Your task to perform on an android device: uninstall "Move to iOS" Image 0: 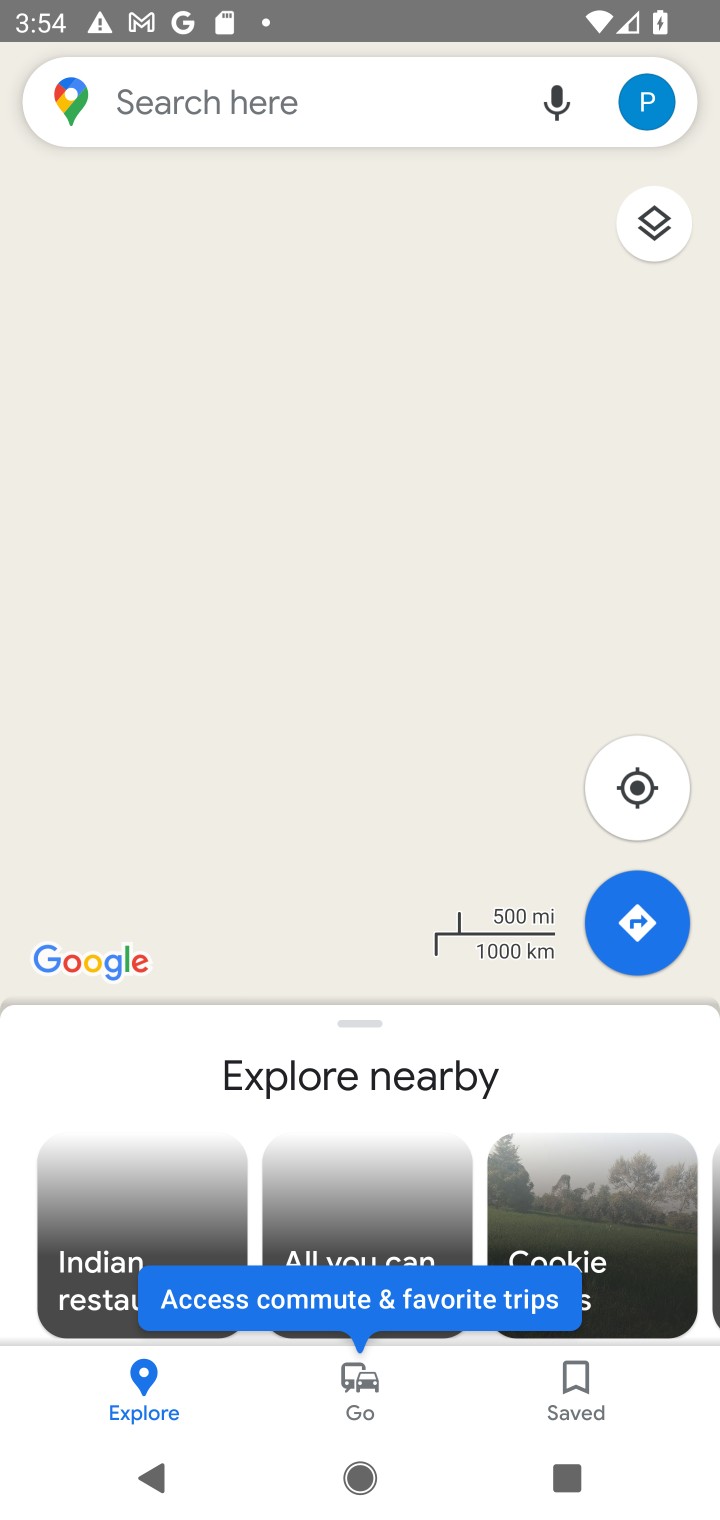
Step 0: click (297, 92)
Your task to perform on an android device: uninstall "Move to iOS" Image 1: 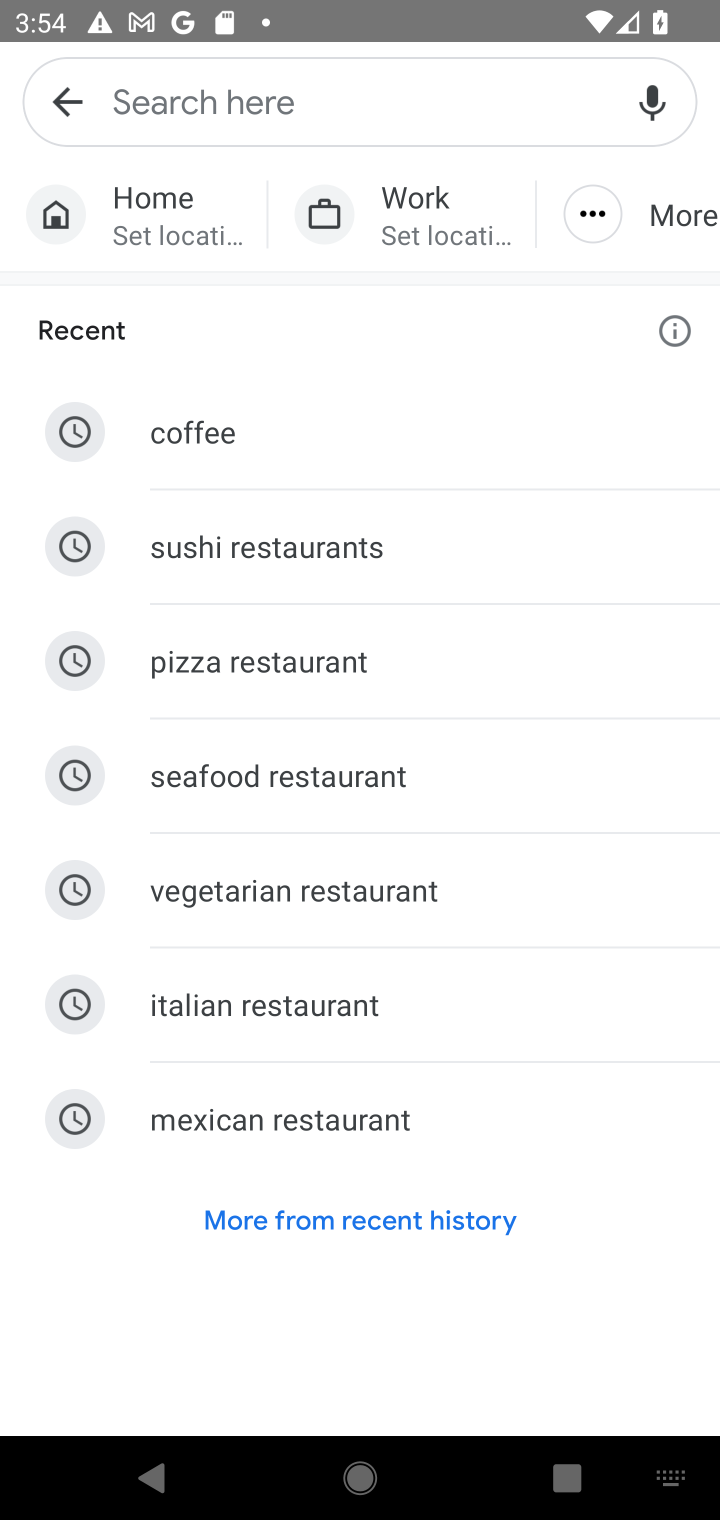
Step 1: type "move to ios"
Your task to perform on an android device: uninstall "Move to iOS" Image 2: 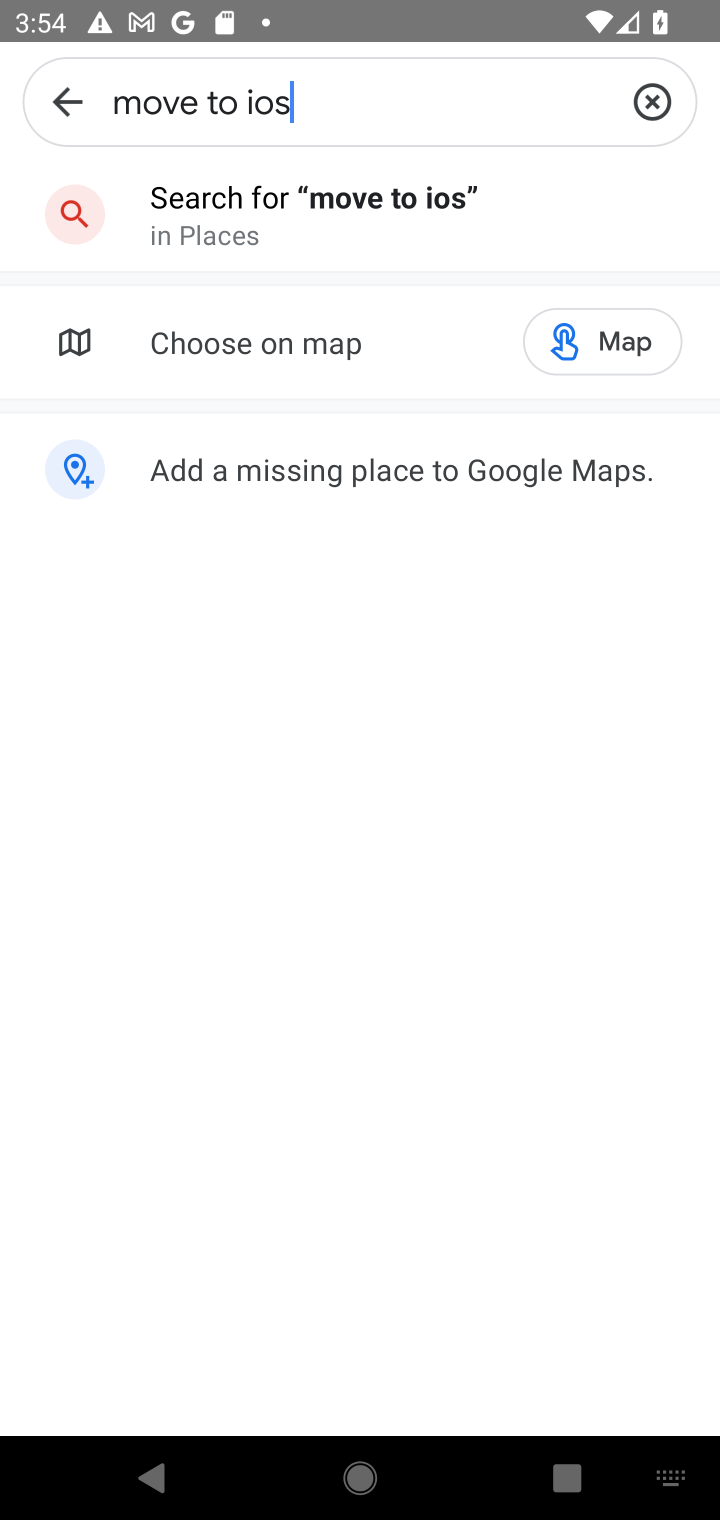
Step 2: click (324, 226)
Your task to perform on an android device: uninstall "Move to iOS" Image 3: 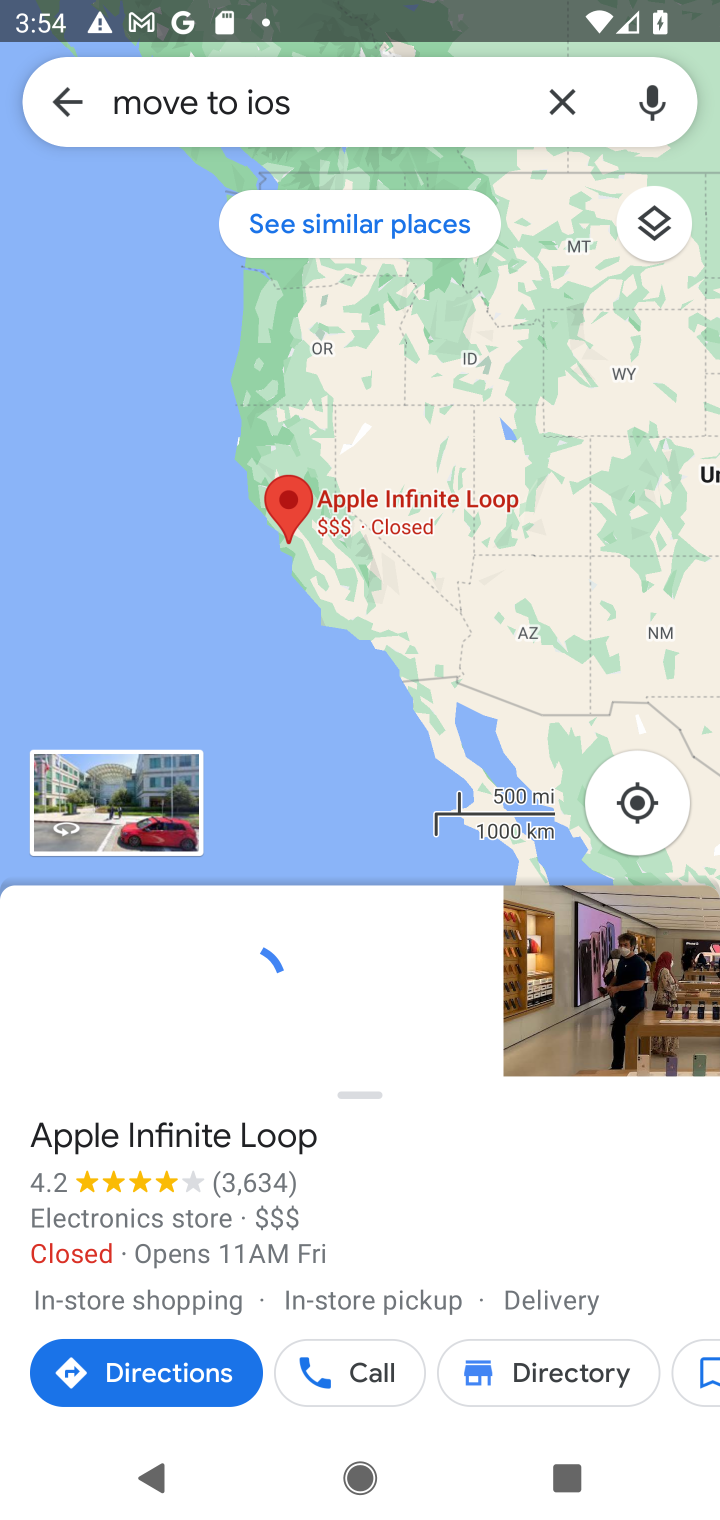
Step 3: press home button
Your task to perform on an android device: uninstall "Move to iOS" Image 4: 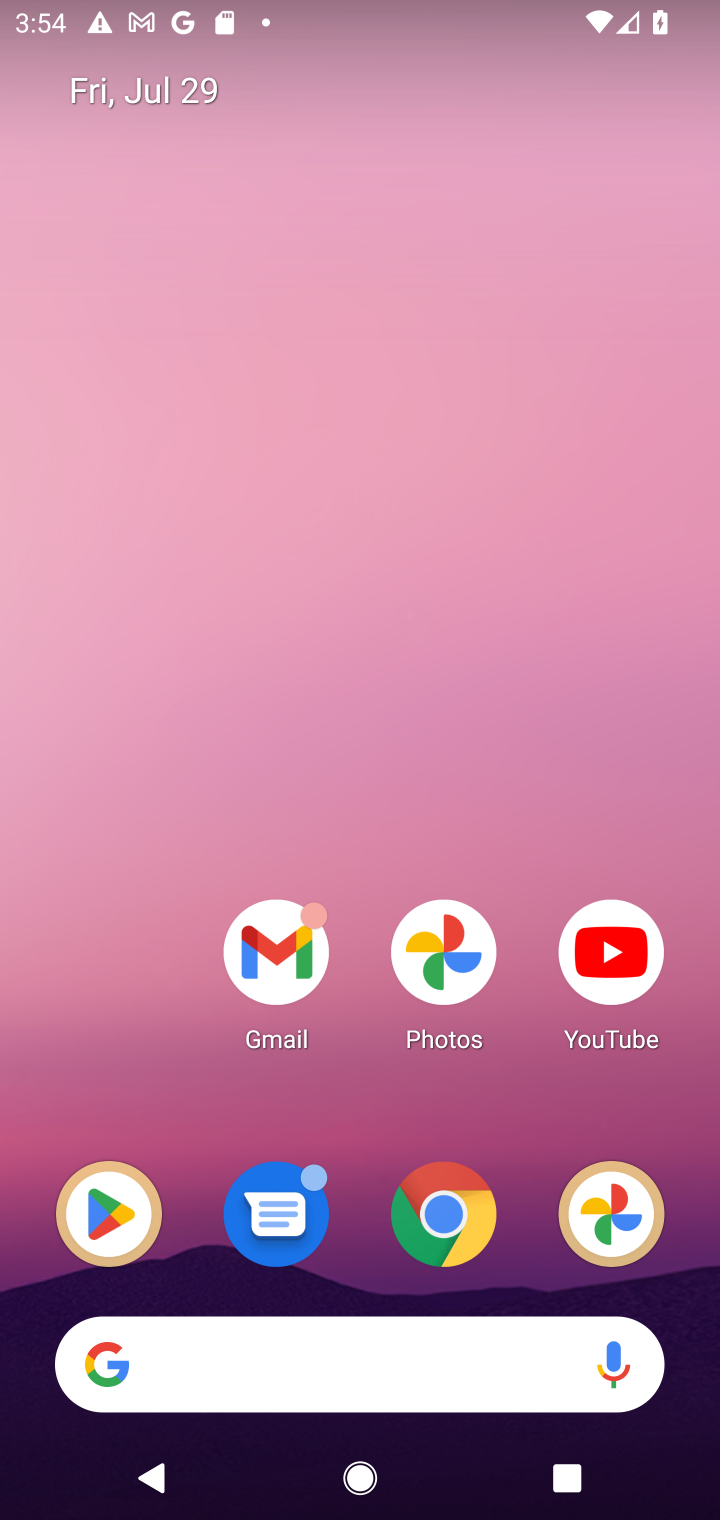
Step 4: click (129, 1190)
Your task to perform on an android device: uninstall "Move to iOS" Image 5: 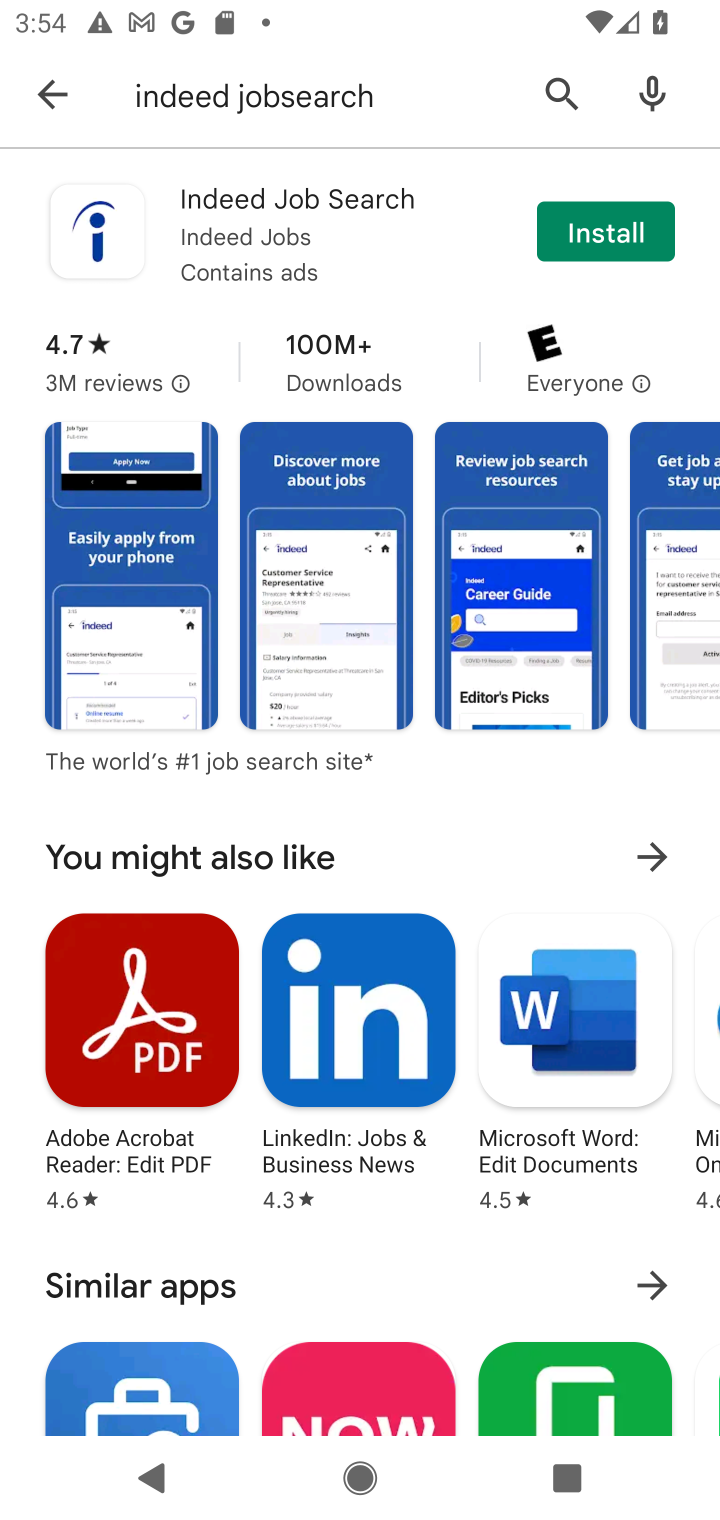
Step 5: click (327, 90)
Your task to perform on an android device: uninstall "Move to iOS" Image 6: 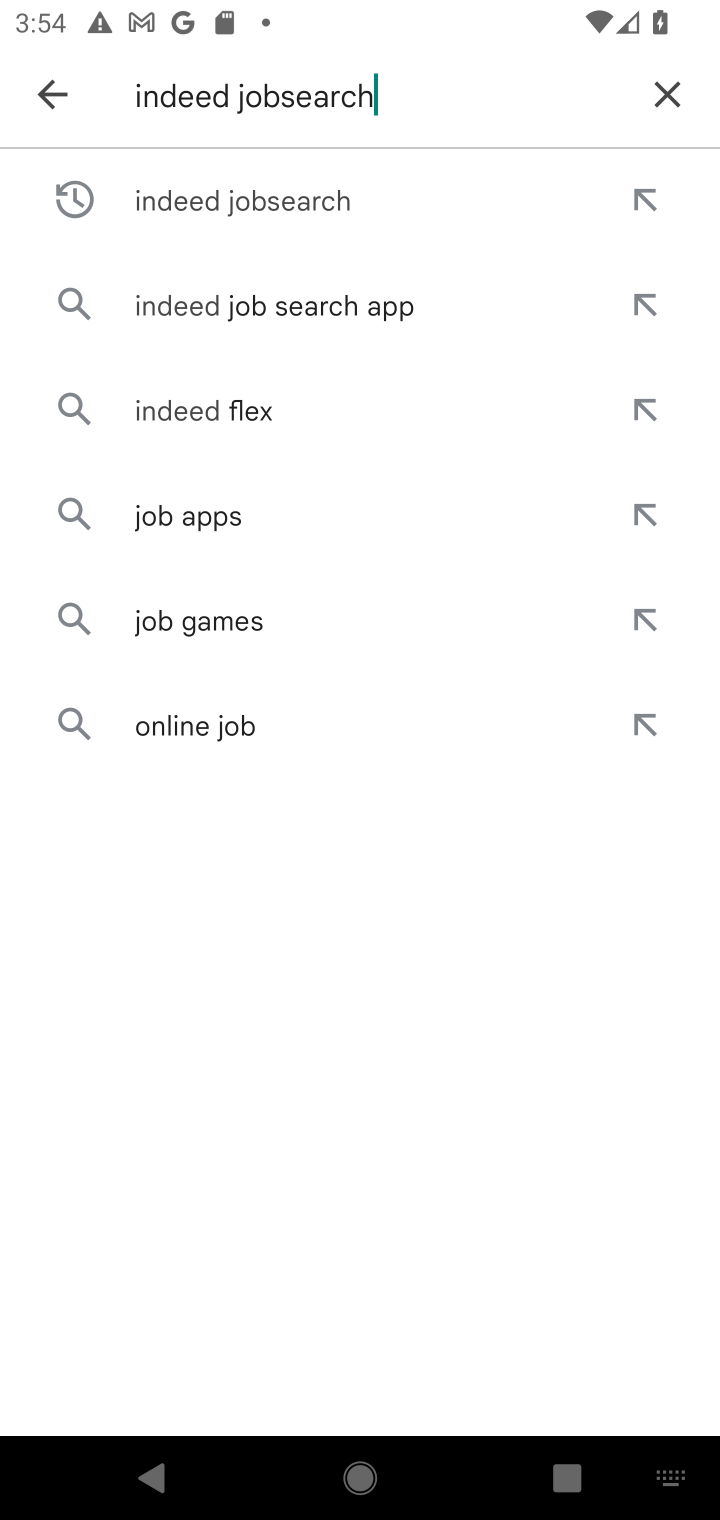
Step 6: click (668, 89)
Your task to perform on an android device: uninstall "Move to iOS" Image 7: 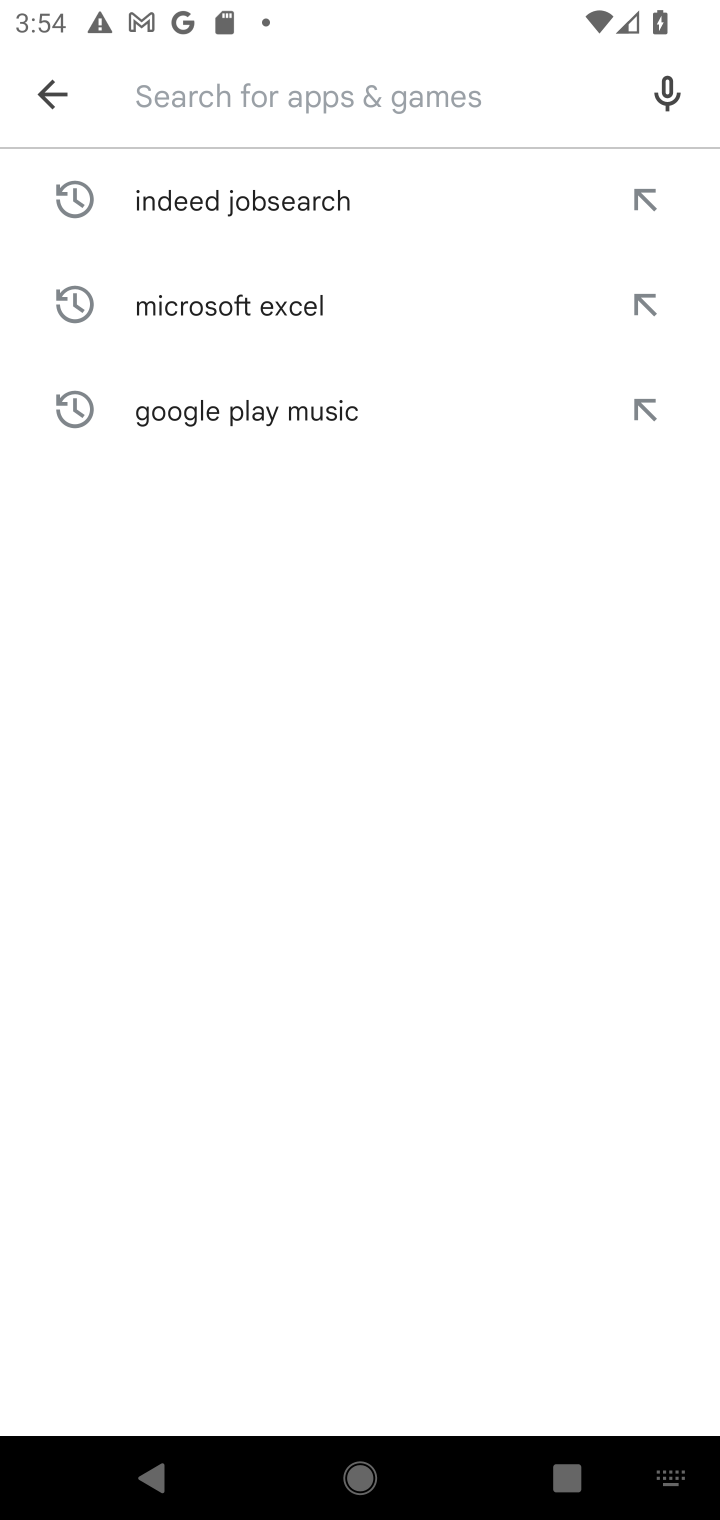
Step 7: type "move to ios"
Your task to perform on an android device: uninstall "Move to iOS" Image 8: 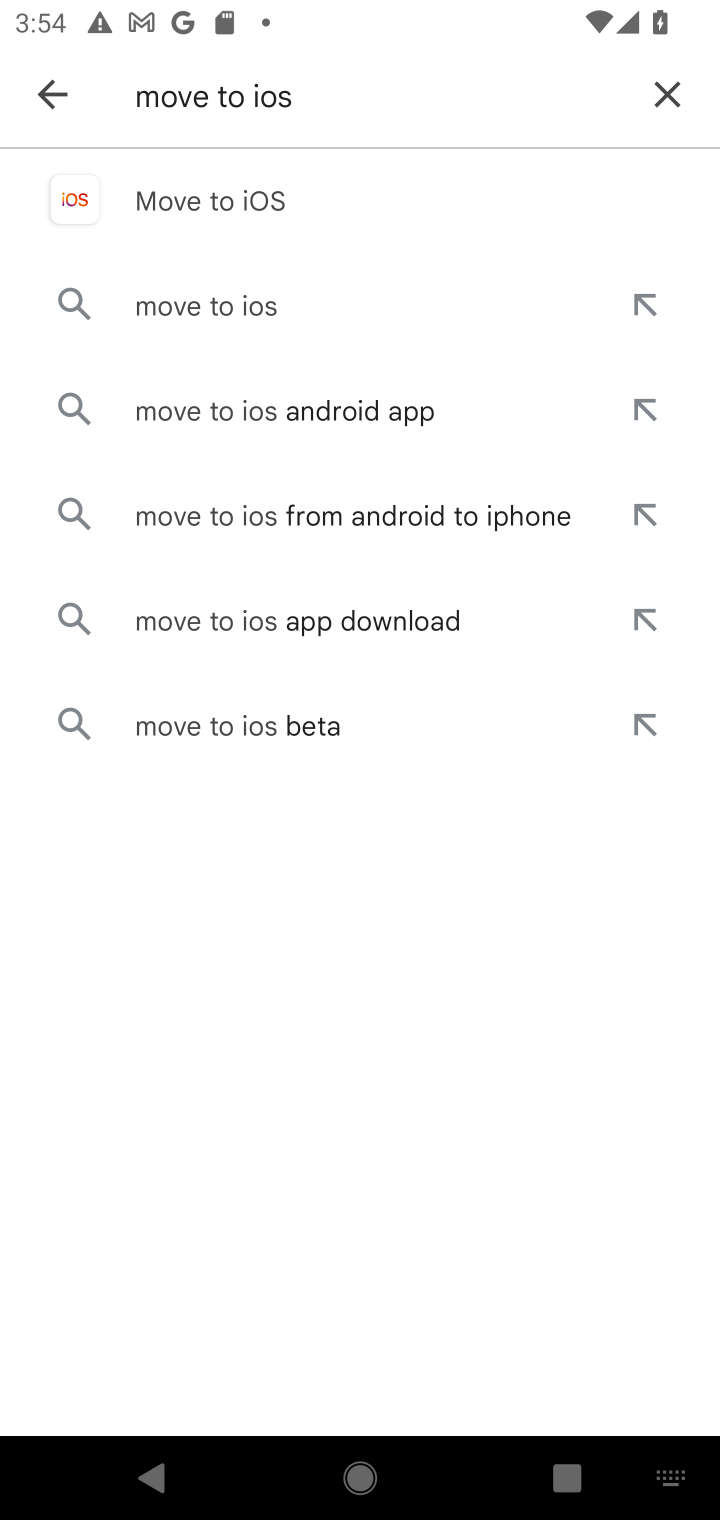
Step 8: click (264, 215)
Your task to perform on an android device: uninstall "Move to iOS" Image 9: 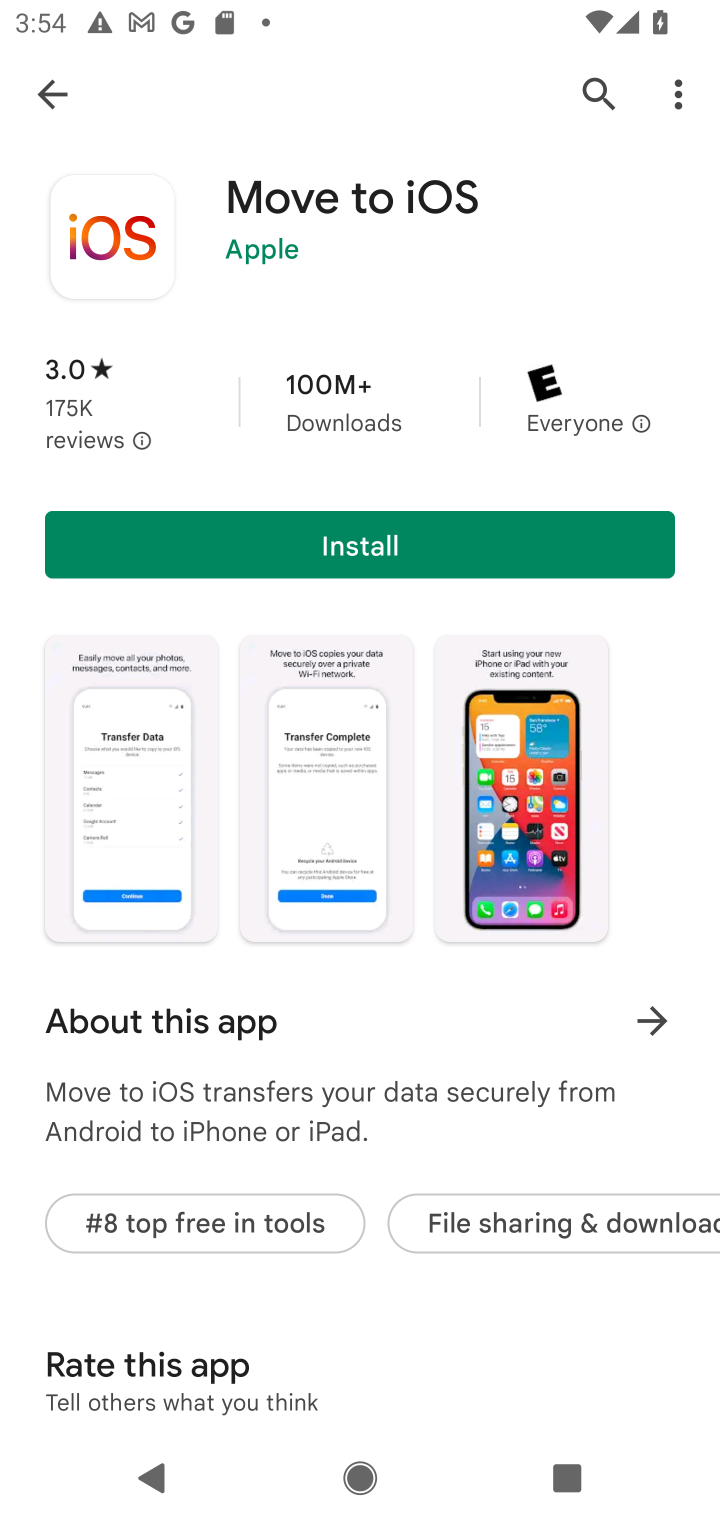
Step 9: task complete